Your task to perform on an android device: Go to wifi settings Image 0: 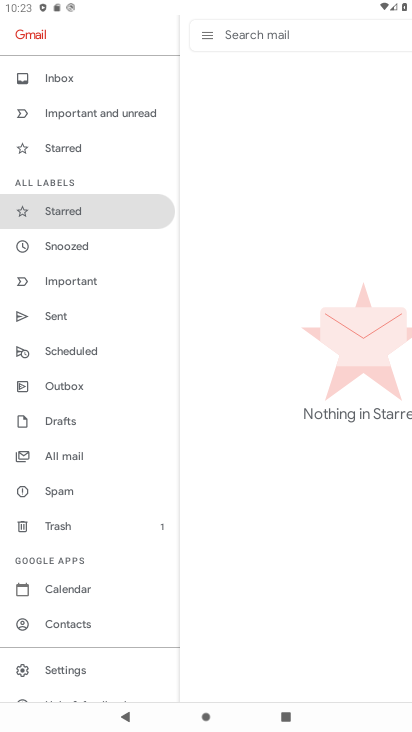
Step 0: press home button
Your task to perform on an android device: Go to wifi settings Image 1: 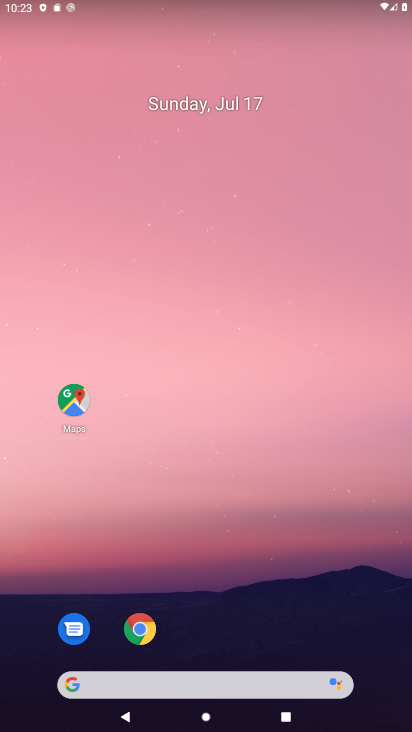
Step 1: drag from (198, 676) to (198, 117)
Your task to perform on an android device: Go to wifi settings Image 2: 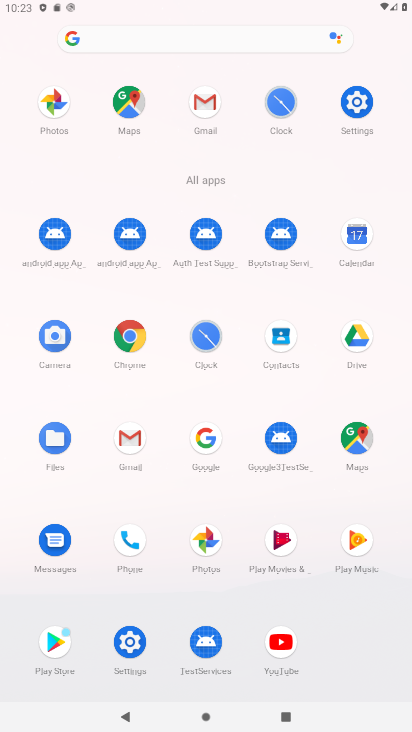
Step 2: click (370, 104)
Your task to perform on an android device: Go to wifi settings Image 3: 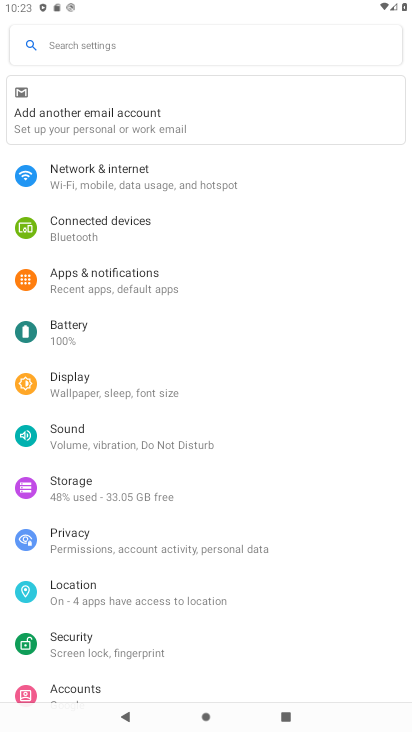
Step 3: click (195, 170)
Your task to perform on an android device: Go to wifi settings Image 4: 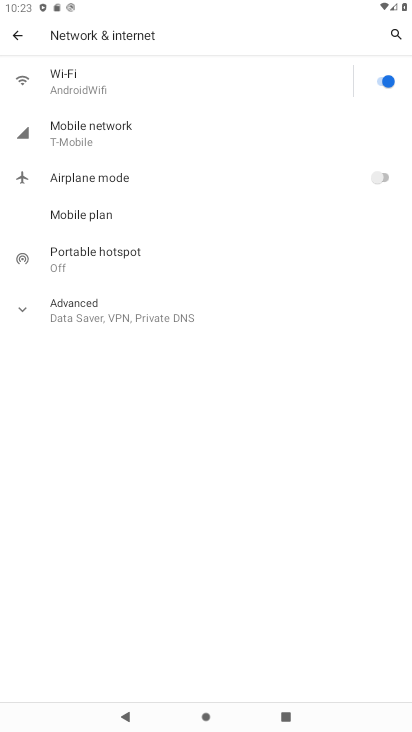
Step 4: click (106, 80)
Your task to perform on an android device: Go to wifi settings Image 5: 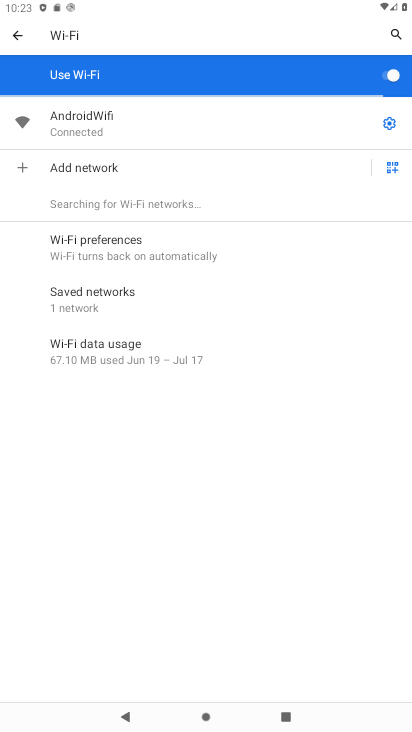
Step 5: task complete